Your task to perform on an android device: Go to Google Image 0: 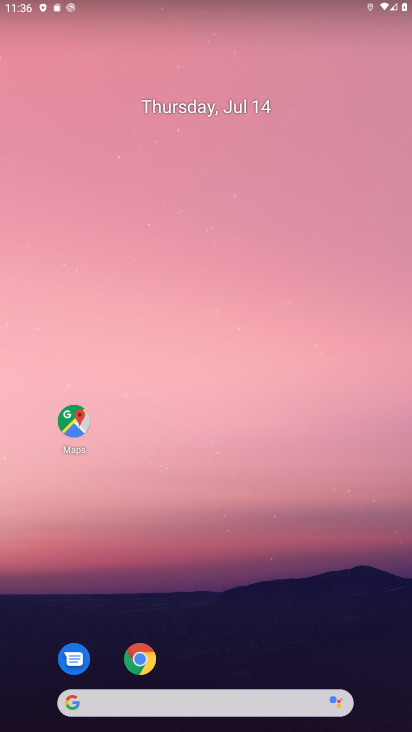
Step 0: drag from (216, 650) to (239, 188)
Your task to perform on an android device: Go to Google Image 1: 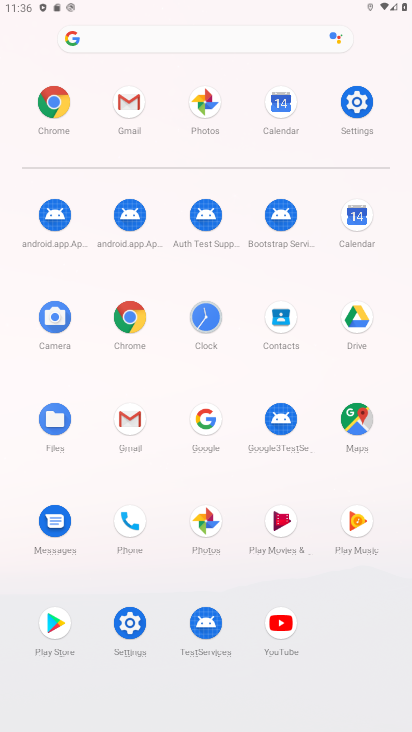
Step 1: click (197, 425)
Your task to perform on an android device: Go to Google Image 2: 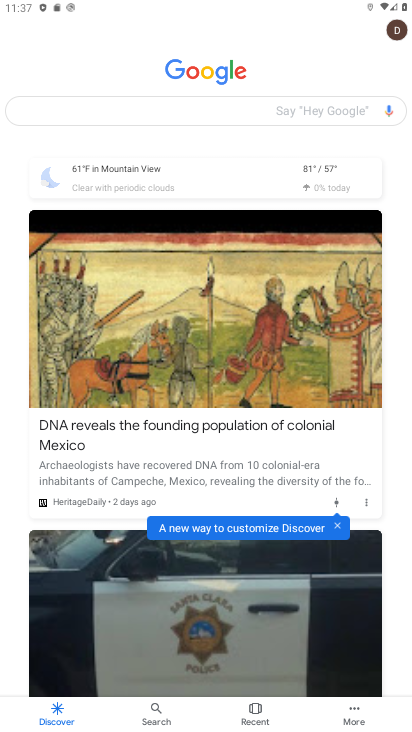
Step 2: task complete